Your task to perform on an android device: open the mobile data screen to see how much data has been used Image 0: 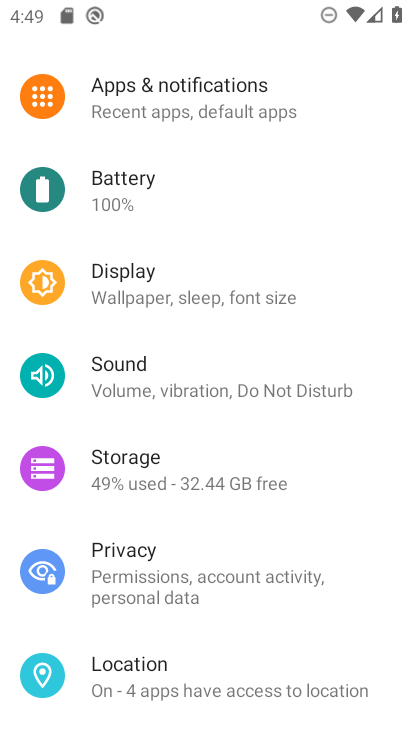
Step 0: drag from (221, 281) to (251, 676)
Your task to perform on an android device: open the mobile data screen to see how much data has been used Image 1: 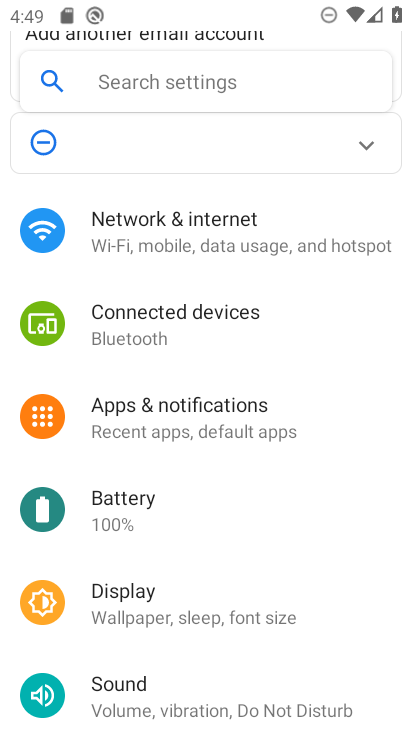
Step 1: click (258, 235)
Your task to perform on an android device: open the mobile data screen to see how much data has been used Image 2: 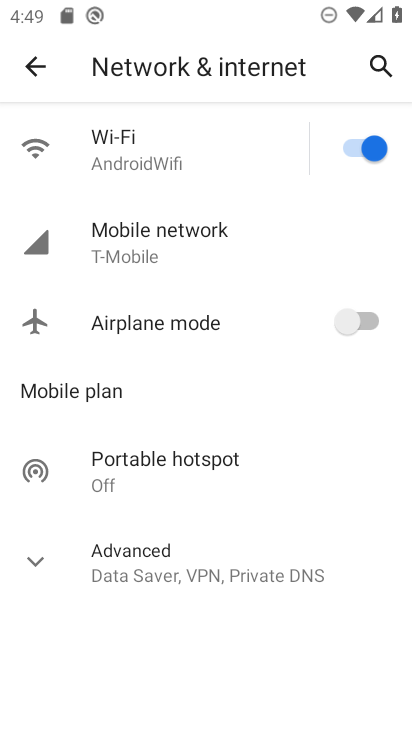
Step 2: click (214, 230)
Your task to perform on an android device: open the mobile data screen to see how much data has been used Image 3: 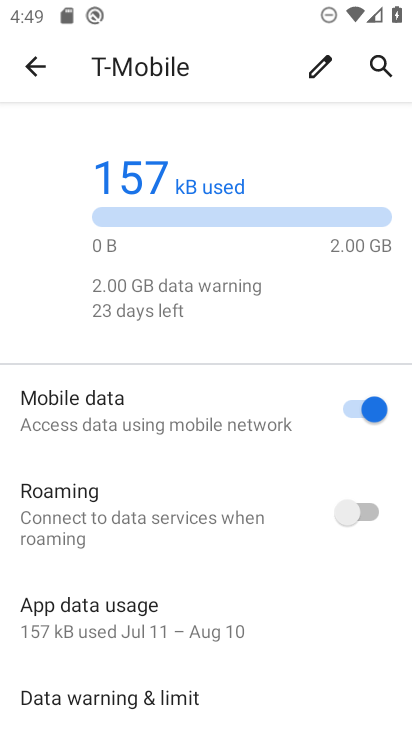
Step 3: task complete